Your task to perform on an android device: all mails in gmail Image 0: 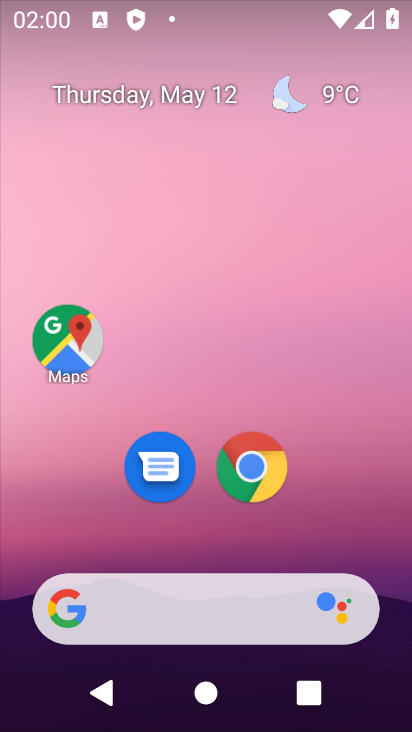
Step 0: drag from (340, 540) to (347, 169)
Your task to perform on an android device: all mails in gmail Image 1: 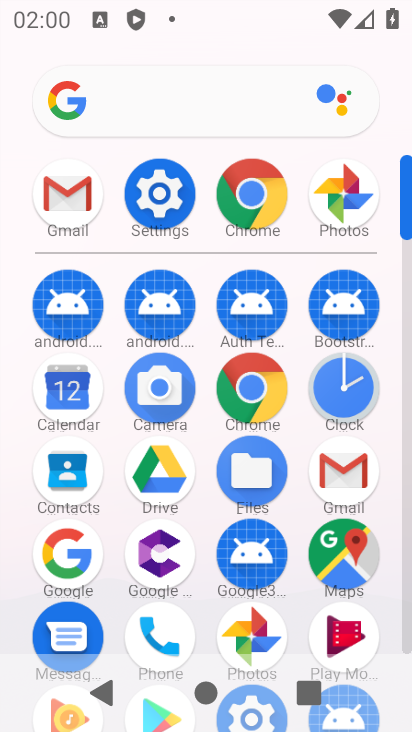
Step 1: click (64, 188)
Your task to perform on an android device: all mails in gmail Image 2: 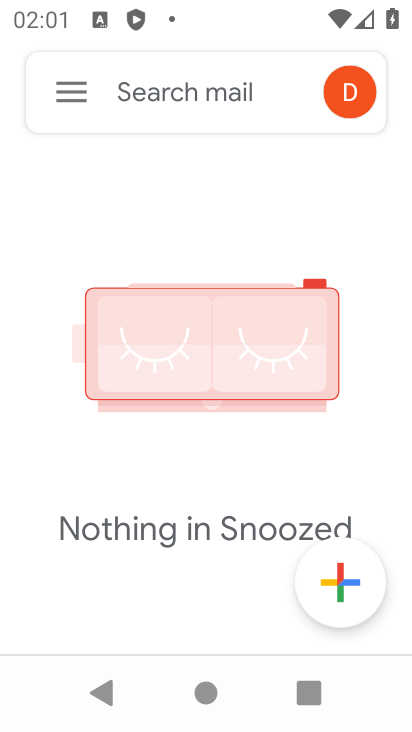
Step 2: click (59, 87)
Your task to perform on an android device: all mails in gmail Image 3: 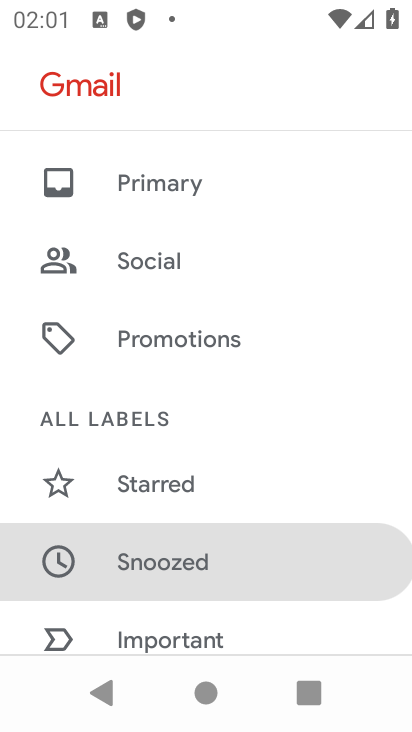
Step 3: drag from (217, 558) to (283, 159)
Your task to perform on an android device: all mails in gmail Image 4: 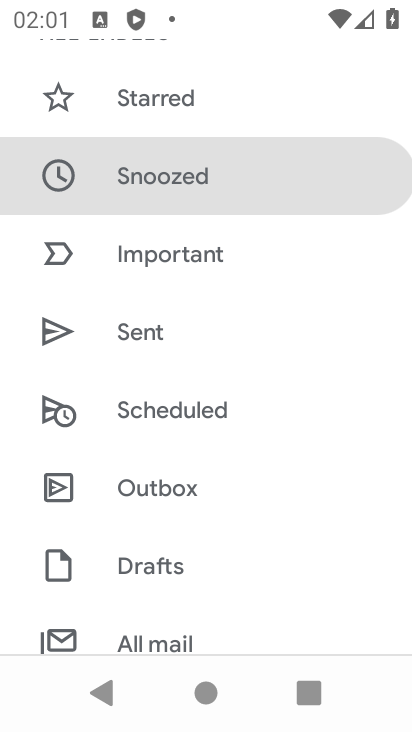
Step 4: drag from (168, 598) to (213, 340)
Your task to perform on an android device: all mails in gmail Image 5: 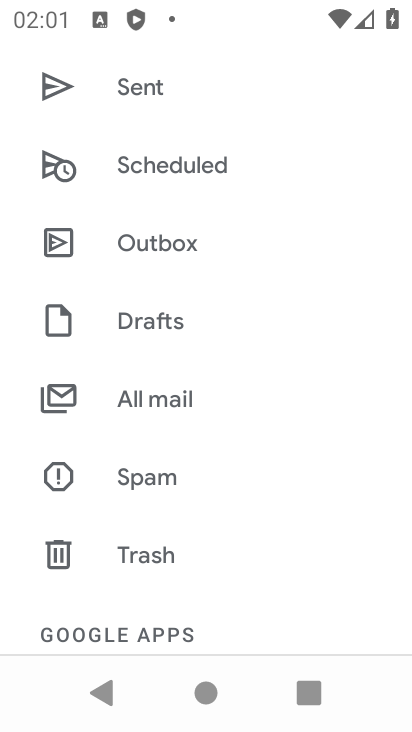
Step 5: click (207, 401)
Your task to perform on an android device: all mails in gmail Image 6: 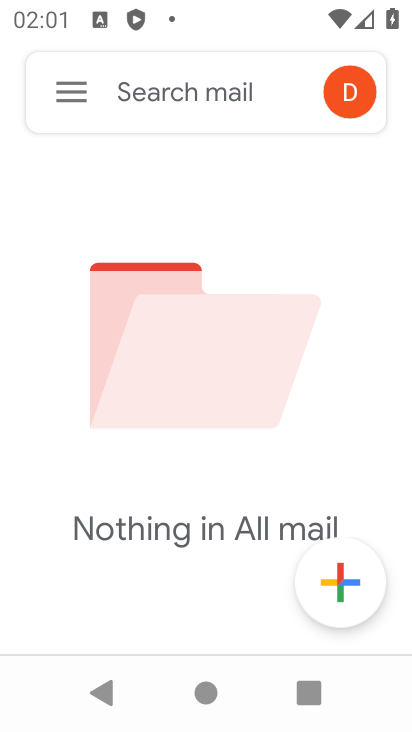
Step 6: task complete